Your task to perform on an android device: Toggle the flashlight Image 0: 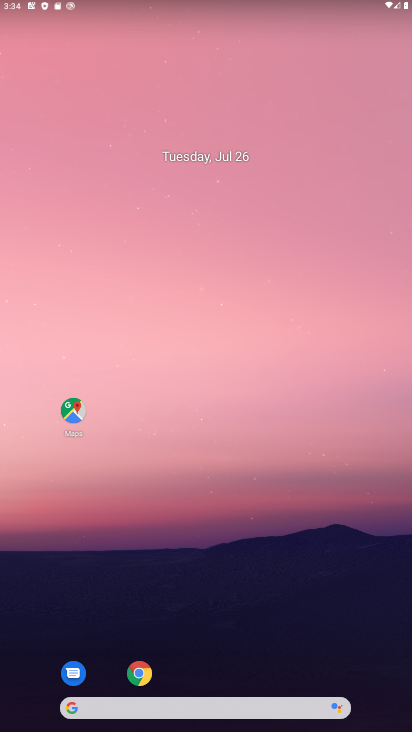
Step 0: drag from (159, 3) to (166, 509)
Your task to perform on an android device: Toggle the flashlight Image 1: 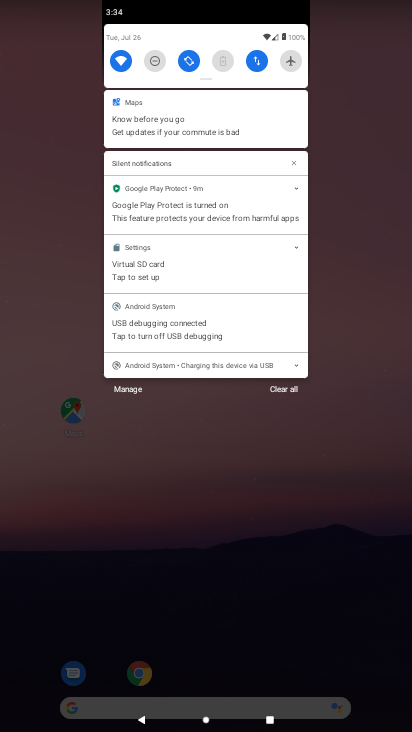
Step 1: task complete